Your task to perform on an android device: open a new tab in the chrome app Image 0: 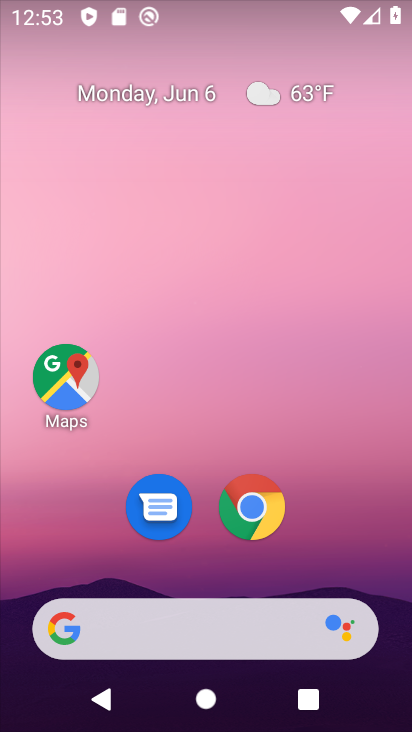
Step 0: click (266, 500)
Your task to perform on an android device: open a new tab in the chrome app Image 1: 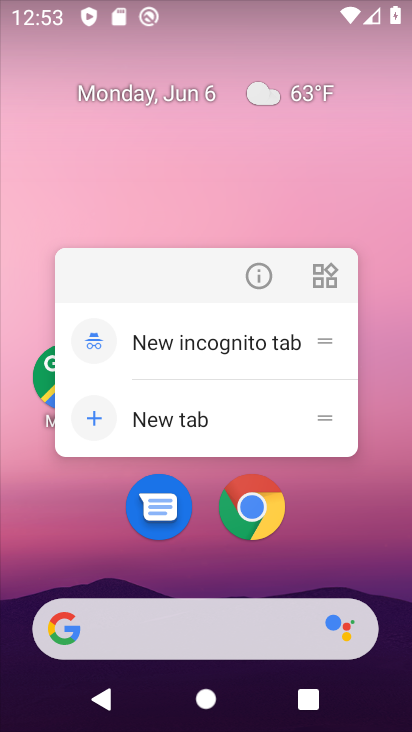
Step 1: click (239, 512)
Your task to perform on an android device: open a new tab in the chrome app Image 2: 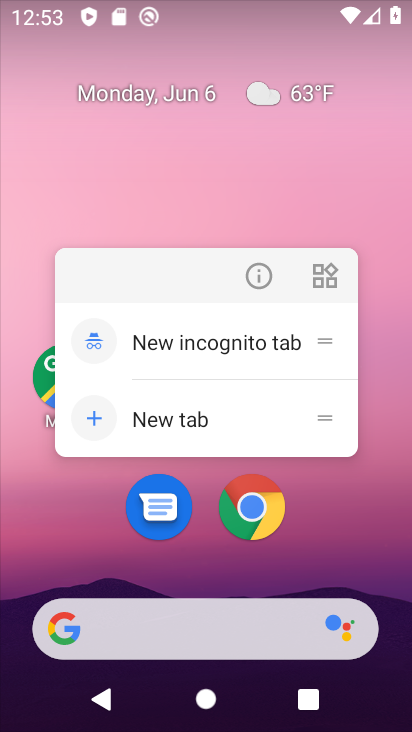
Step 2: click (246, 508)
Your task to perform on an android device: open a new tab in the chrome app Image 3: 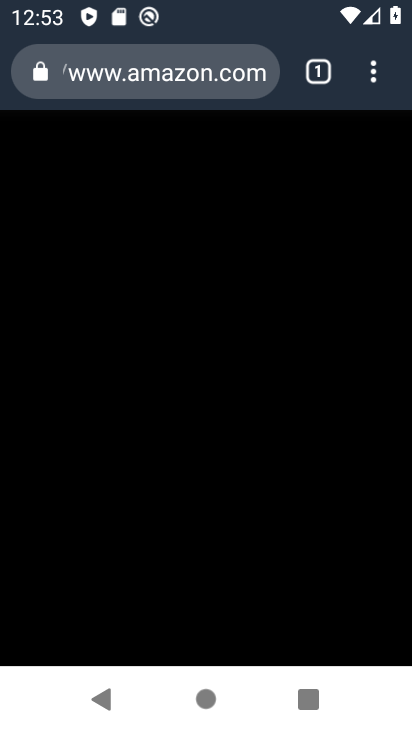
Step 3: click (324, 61)
Your task to perform on an android device: open a new tab in the chrome app Image 4: 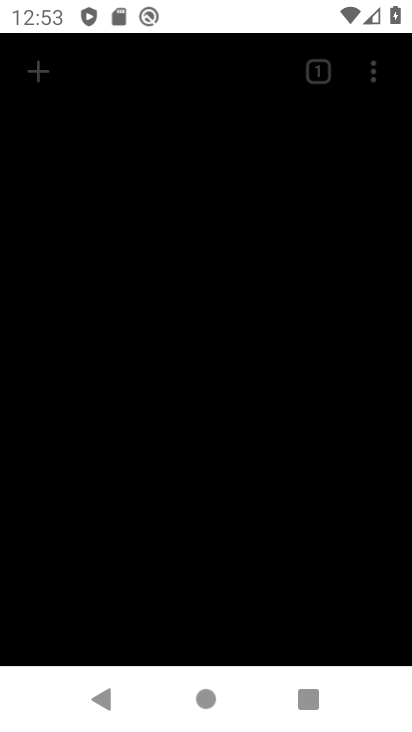
Step 4: click (38, 68)
Your task to perform on an android device: open a new tab in the chrome app Image 5: 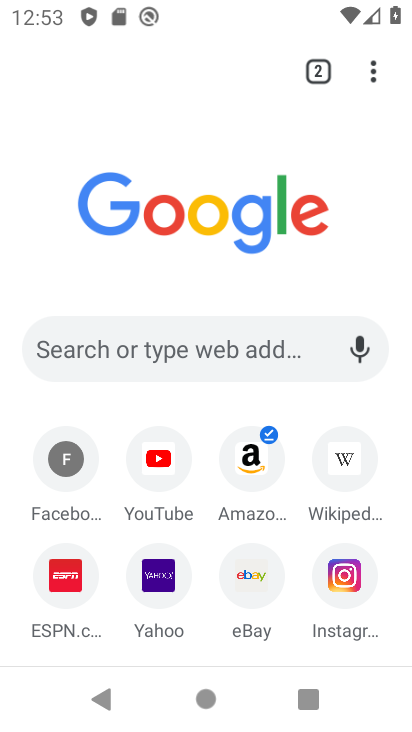
Step 5: click (372, 70)
Your task to perform on an android device: open a new tab in the chrome app Image 6: 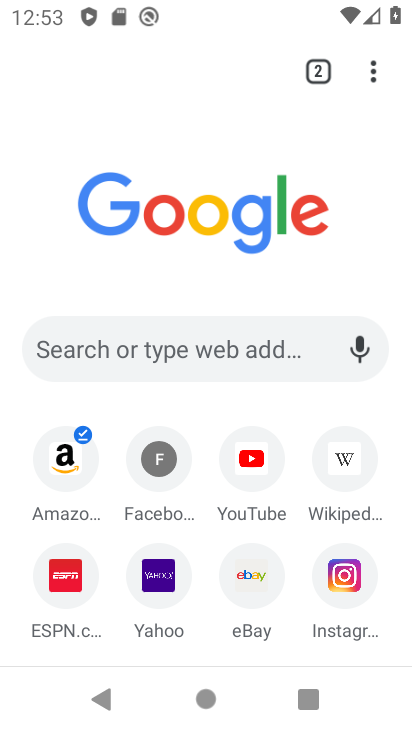
Step 6: click (366, 76)
Your task to perform on an android device: open a new tab in the chrome app Image 7: 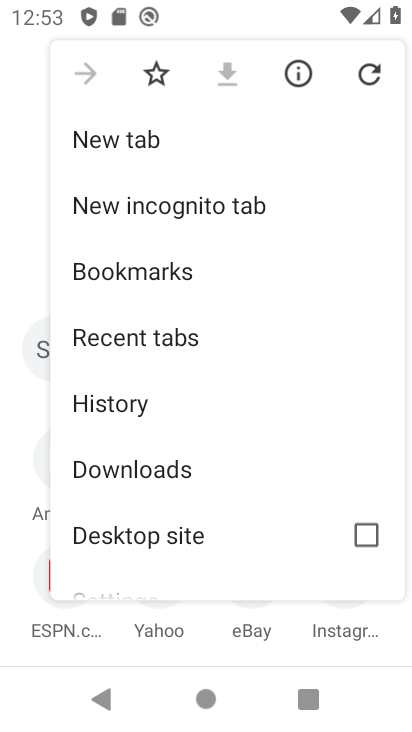
Step 7: click (149, 141)
Your task to perform on an android device: open a new tab in the chrome app Image 8: 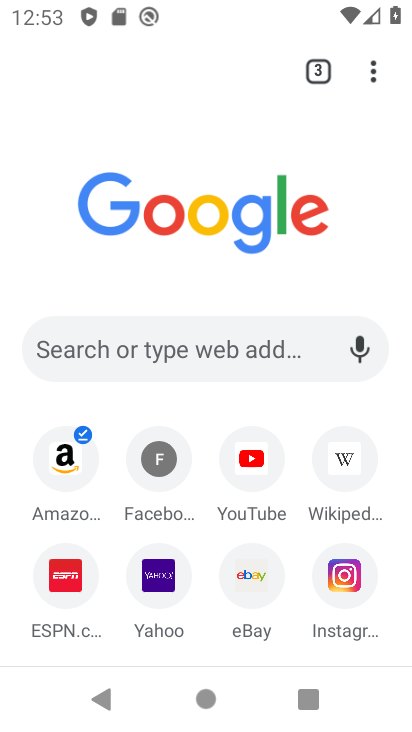
Step 8: task complete